Your task to perform on an android device: toggle javascript in the chrome app Image 0: 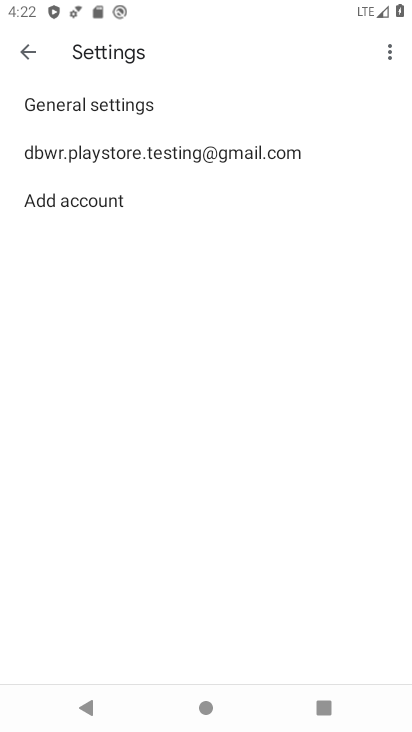
Step 0: press back button
Your task to perform on an android device: toggle javascript in the chrome app Image 1: 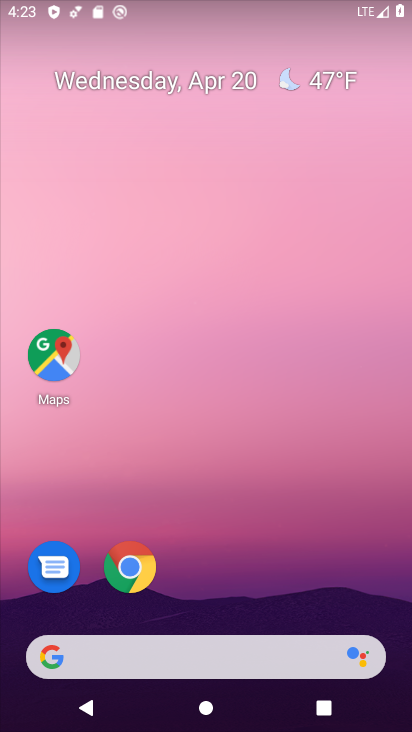
Step 1: drag from (250, 470) to (215, 13)
Your task to perform on an android device: toggle javascript in the chrome app Image 2: 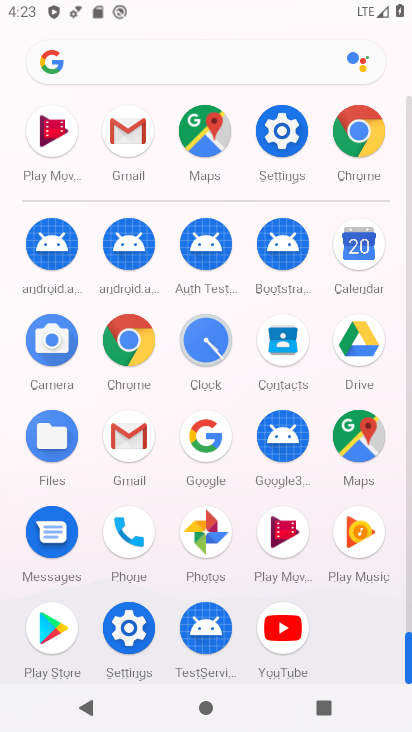
Step 2: click (126, 335)
Your task to perform on an android device: toggle javascript in the chrome app Image 3: 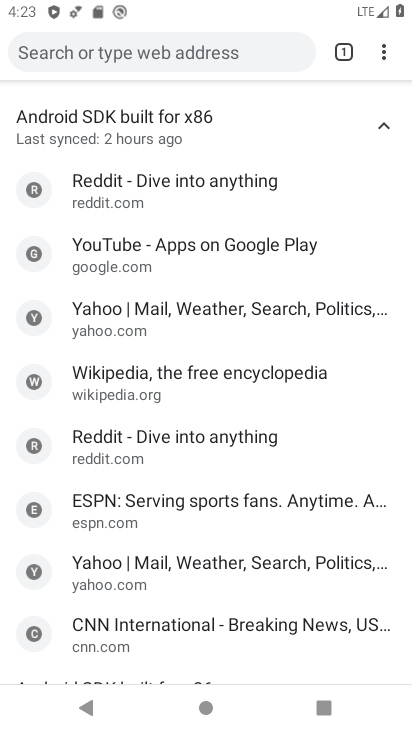
Step 3: drag from (382, 51) to (228, 496)
Your task to perform on an android device: toggle javascript in the chrome app Image 4: 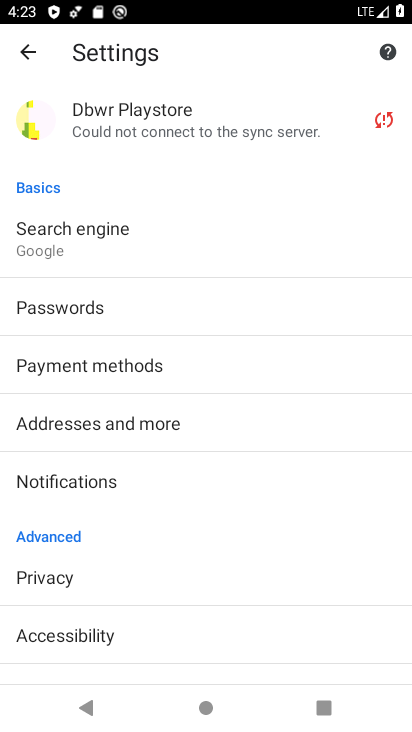
Step 4: drag from (219, 585) to (225, 180)
Your task to perform on an android device: toggle javascript in the chrome app Image 5: 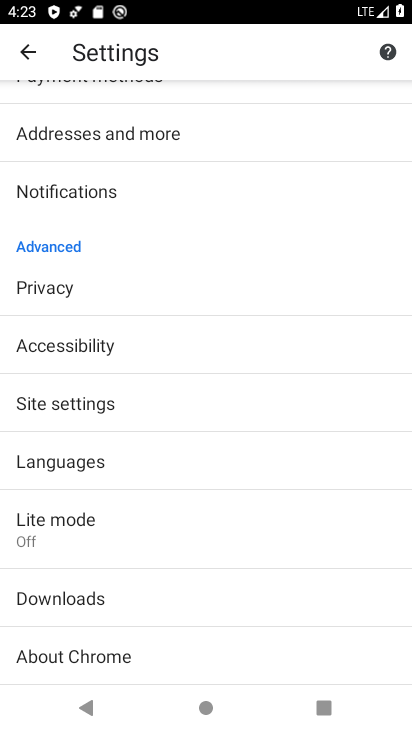
Step 5: click (115, 412)
Your task to perform on an android device: toggle javascript in the chrome app Image 6: 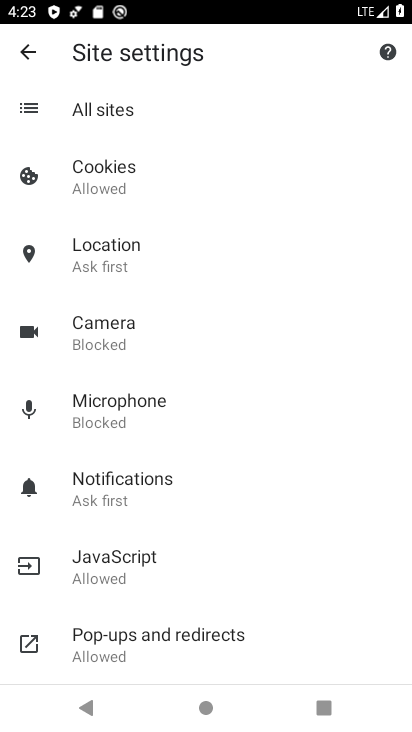
Step 6: drag from (221, 563) to (241, 260)
Your task to perform on an android device: toggle javascript in the chrome app Image 7: 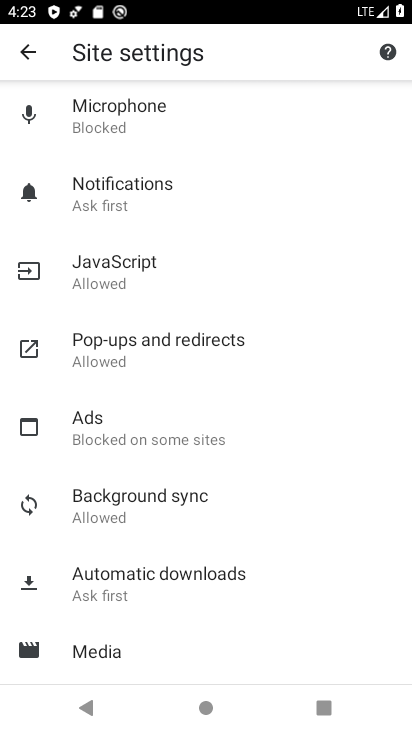
Step 7: click (124, 275)
Your task to perform on an android device: toggle javascript in the chrome app Image 8: 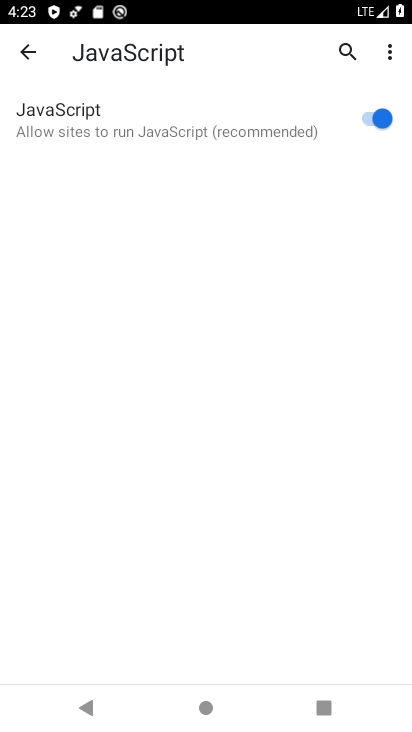
Step 8: click (368, 115)
Your task to perform on an android device: toggle javascript in the chrome app Image 9: 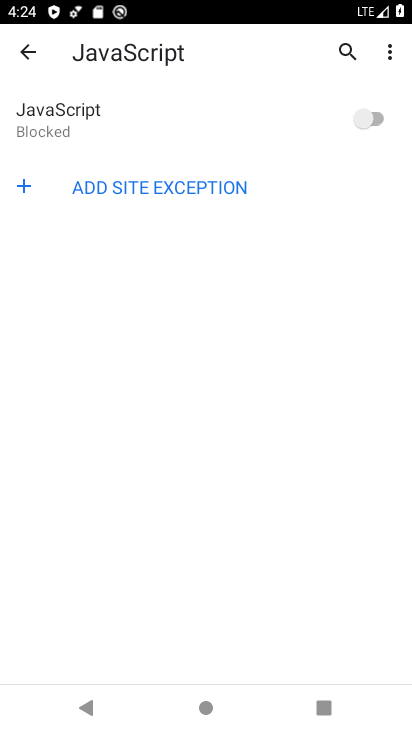
Step 9: task complete